Your task to perform on an android device: install app "LiveIn - Share Your Moment" Image 0: 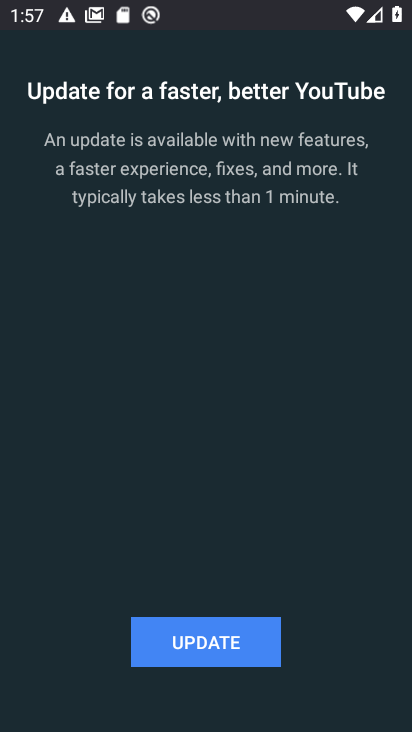
Step 0: press home button
Your task to perform on an android device: install app "LiveIn - Share Your Moment" Image 1: 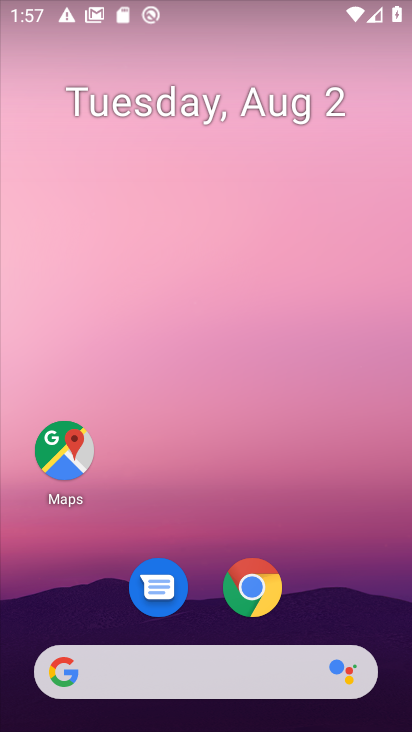
Step 1: drag from (198, 545) to (222, 177)
Your task to perform on an android device: install app "LiveIn - Share Your Moment" Image 2: 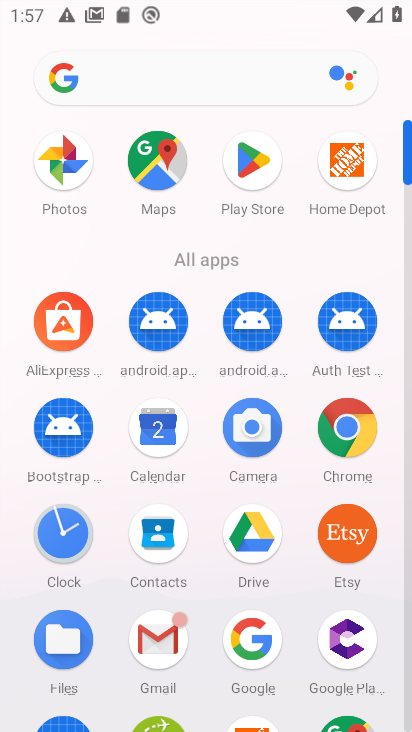
Step 2: click (235, 175)
Your task to perform on an android device: install app "LiveIn - Share Your Moment" Image 3: 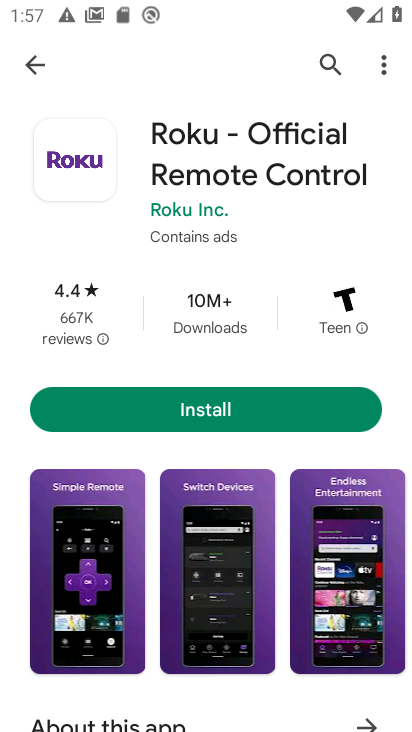
Step 3: click (335, 66)
Your task to perform on an android device: install app "LiveIn - Share Your Moment" Image 4: 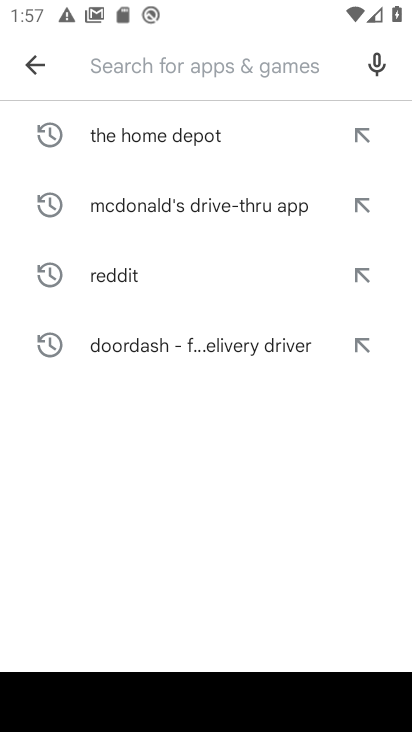
Step 4: type "LiveIn - Share Your Moment"
Your task to perform on an android device: install app "LiveIn - Share Your Moment" Image 5: 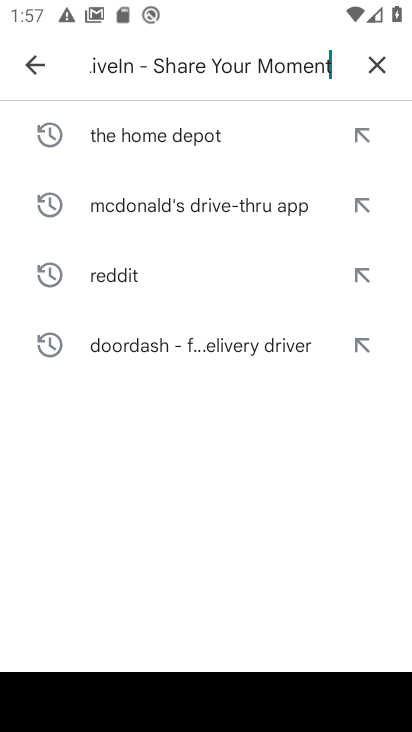
Step 5: type ""
Your task to perform on an android device: install app "LiveIn - Share Your Moment" Image 6: 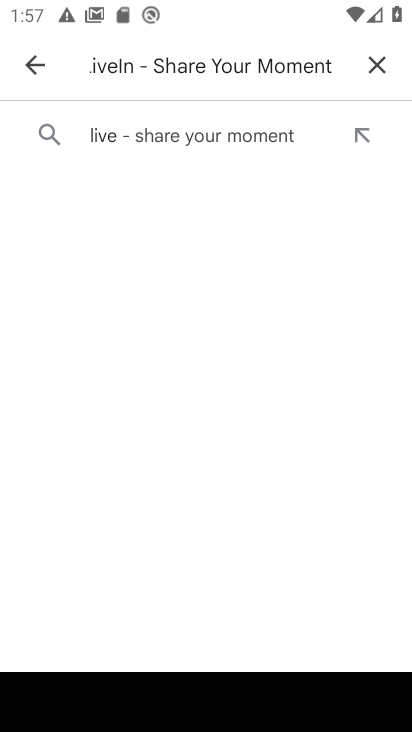
Step 6: click (116, 135)
Your task to perform on an android device: install app "LiveIn - Share Your Moment" Image 7: 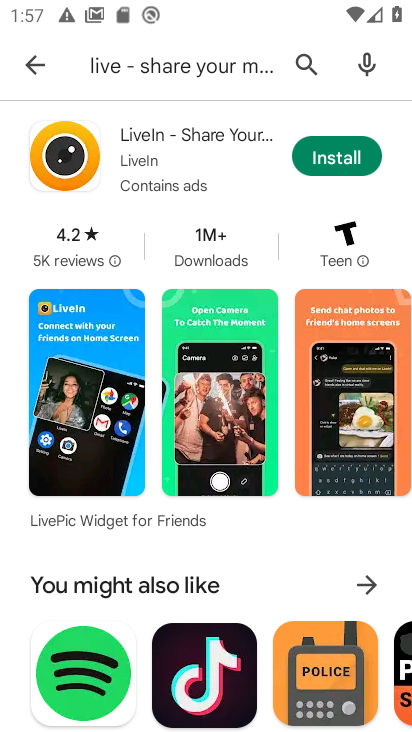
Step 7: click (332, 154)
Your task to perform on an android device: install app "LiveIn - Share Your Moment" Image 8: 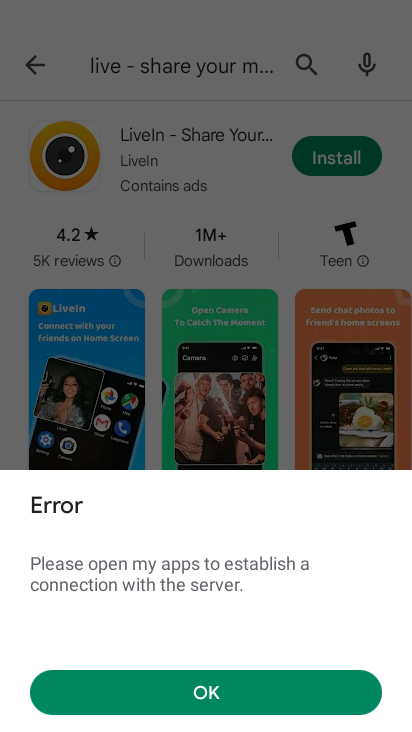
Step 8: task complete